Your task to perform on an android device: Search for flights from Mexico city to Seattle Image 0: 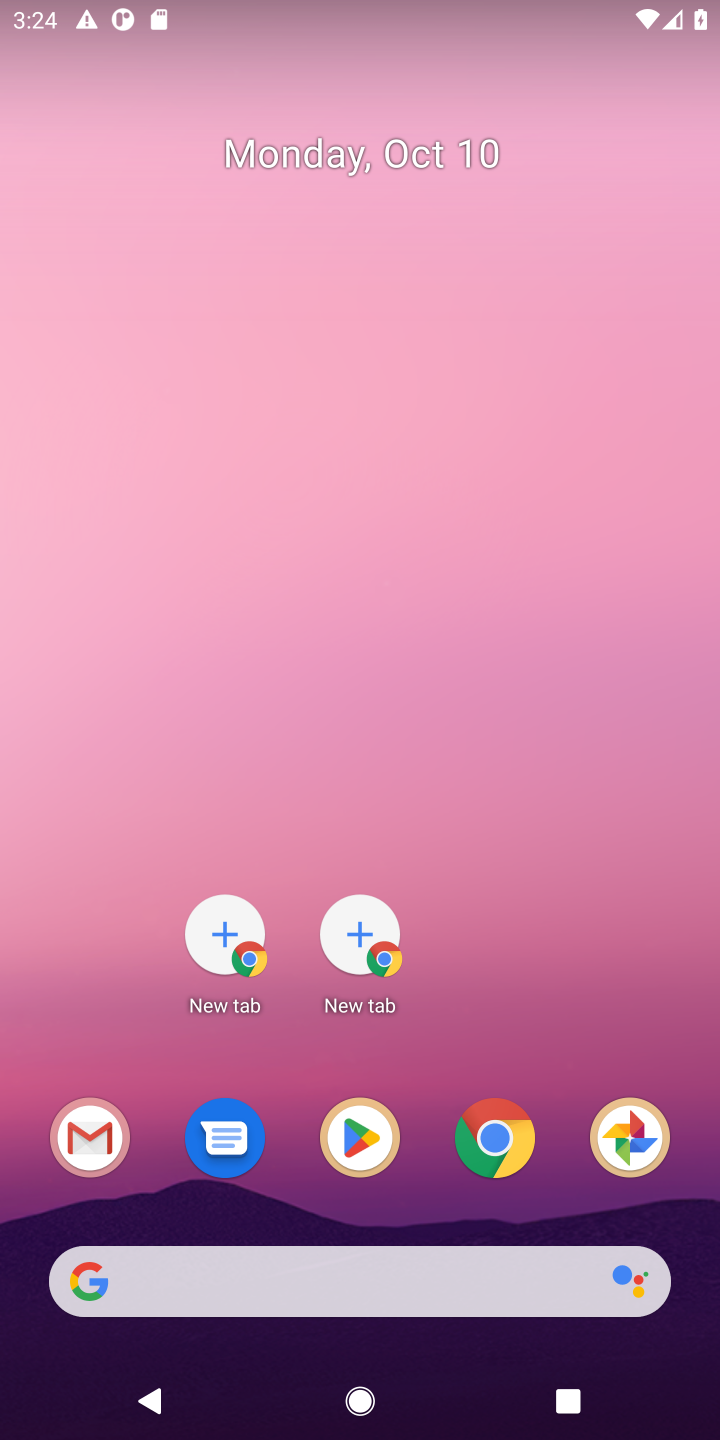
Step 0: click (520, 1151)
Your task to perform on an android device: Search for flights from Mexico city to Seattle Image 1: 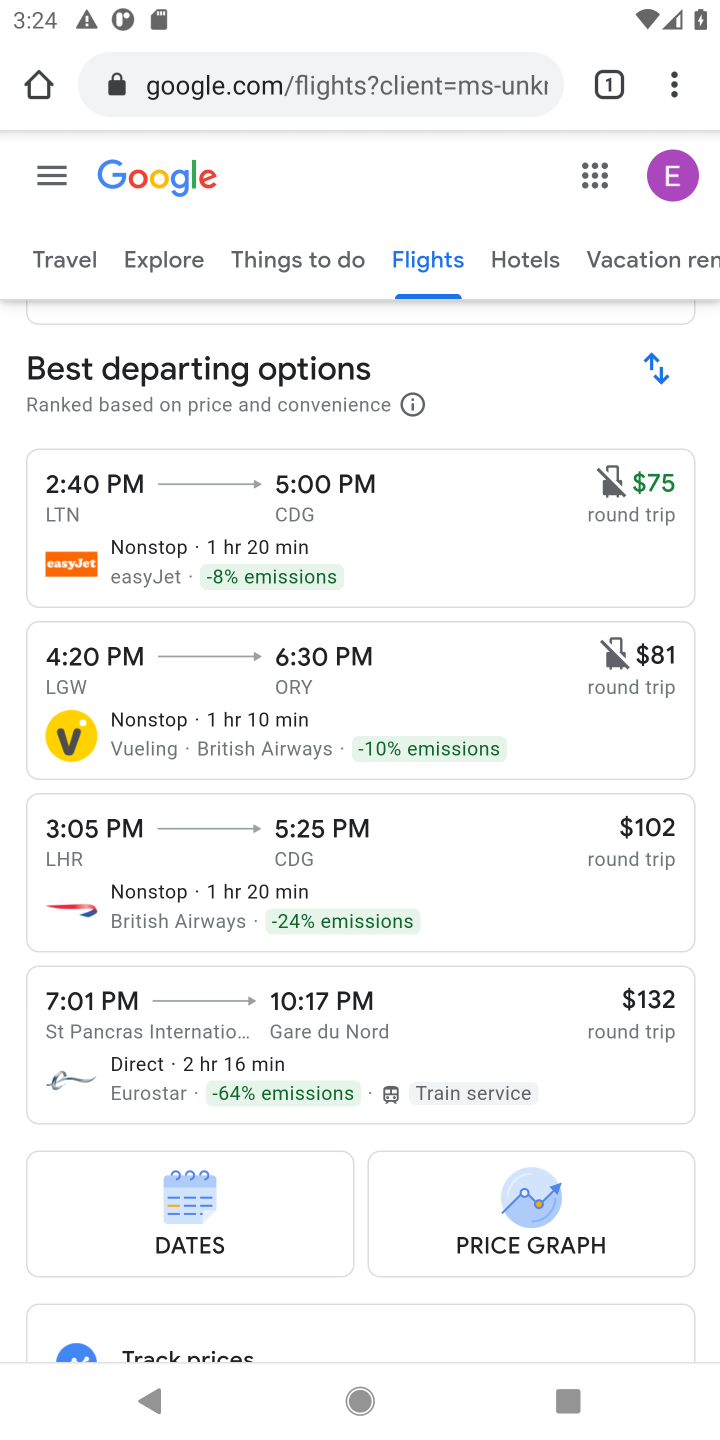
Step 1: click (393, 78)
Your task to perform on an android device: Search for flights from Mexico city to Seattle Image 2: 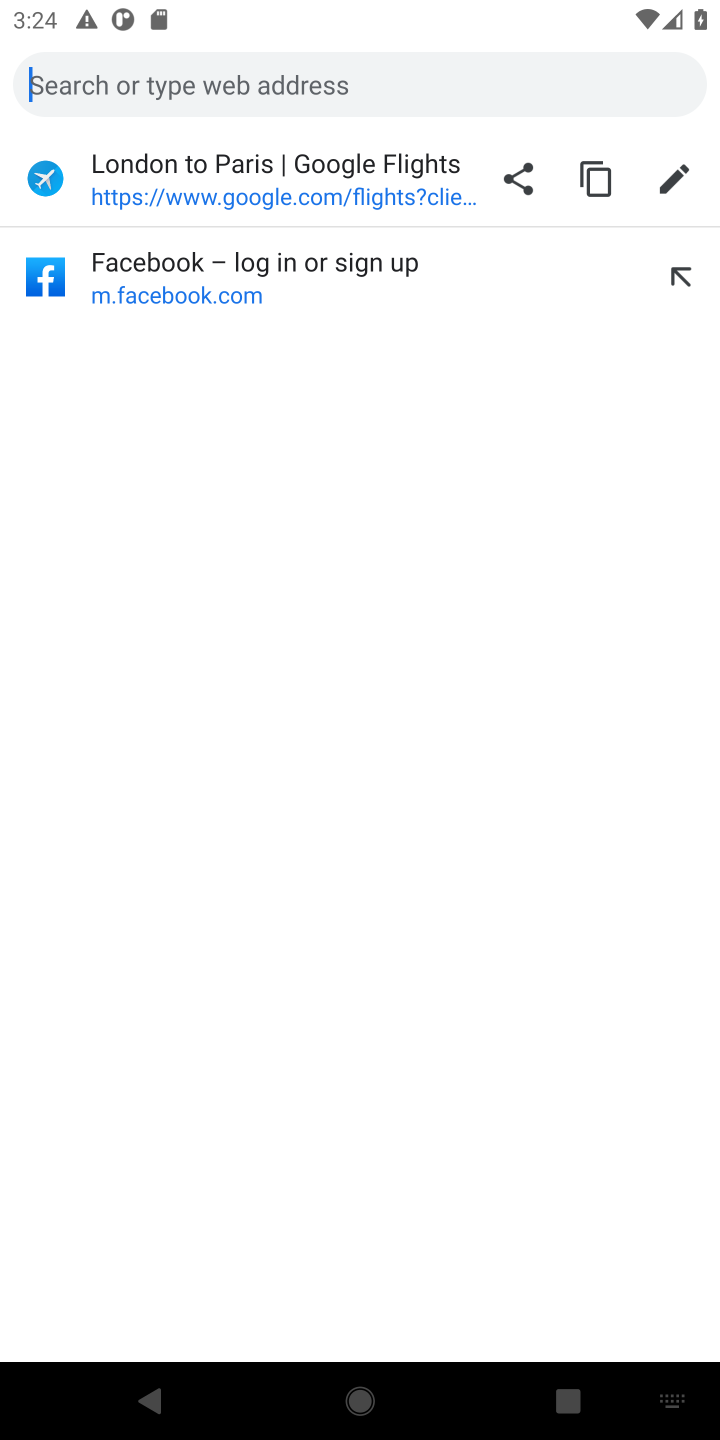
Step 2: click (372, 74)
Your task to perform on an android device: Search for flights from Mexico city to Seattle Image 3: 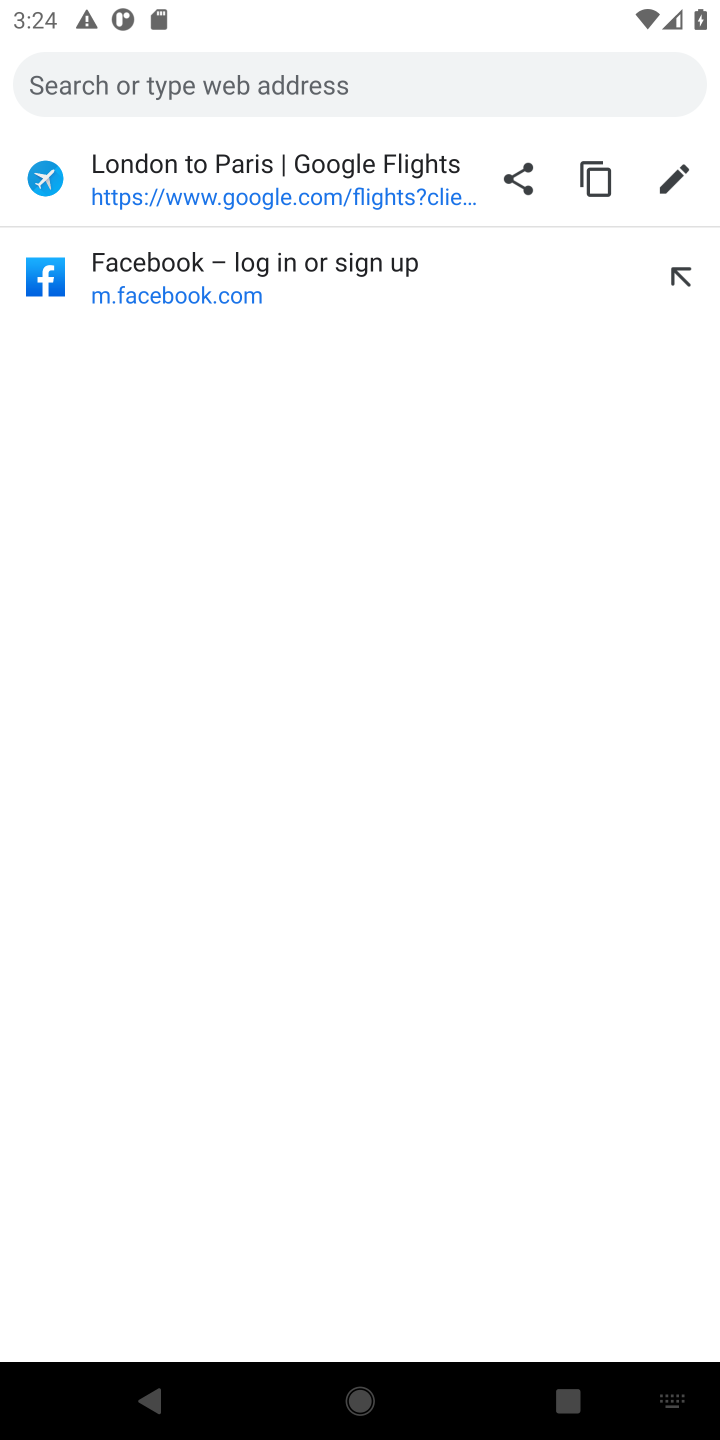
Step 3: click (343, 95)
Your task to perform on an android device: Search for flights from Mexico city to Seattle Image 4: 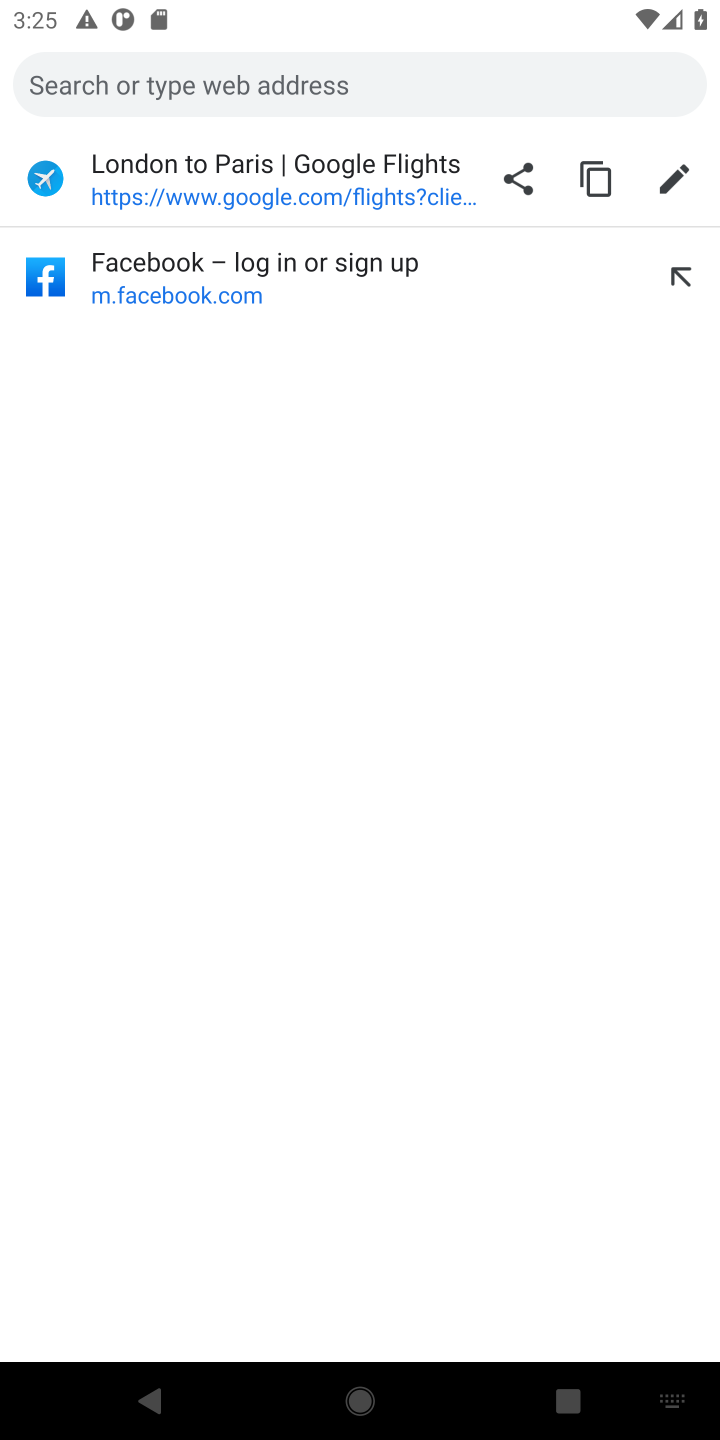
Step 4: type "flights from Mexico city to Seattle"
Your task to perform on an android device: Search for flights from Mexico city to Seattle Image 5: 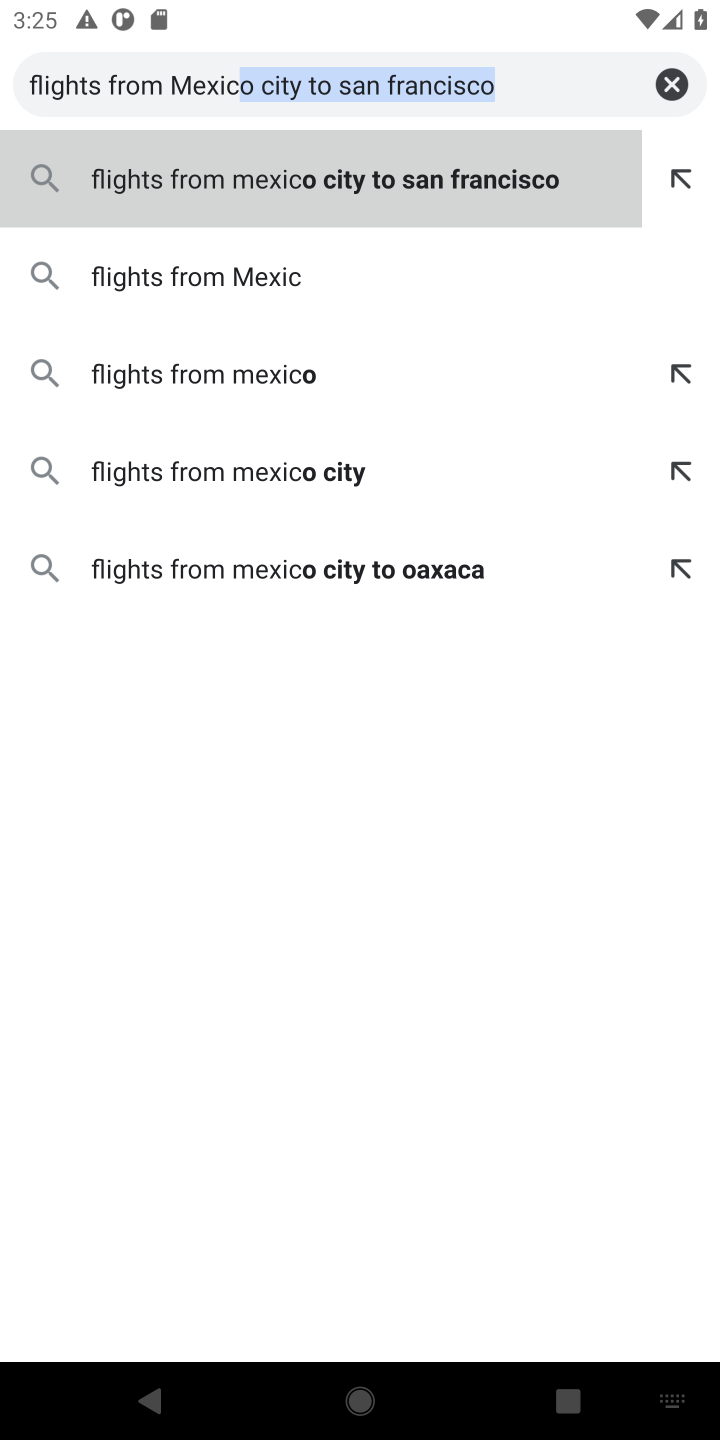
Step 5: type ""
Your task to perform on an android device: Search for flights from Mexico city to Seattle Image 6: 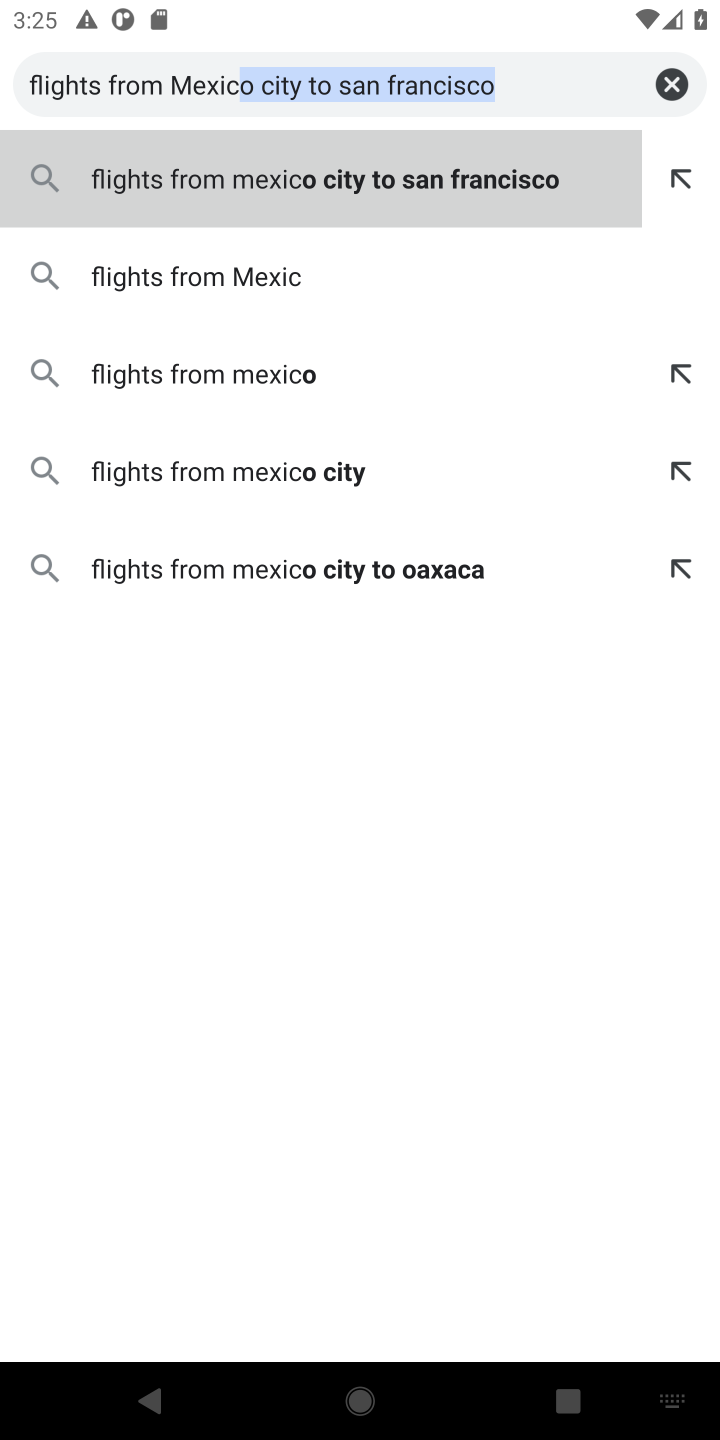
Step 6: press enter
Your task to perform on an android device: Search for flights from Mexico city to Seattle Image 7: 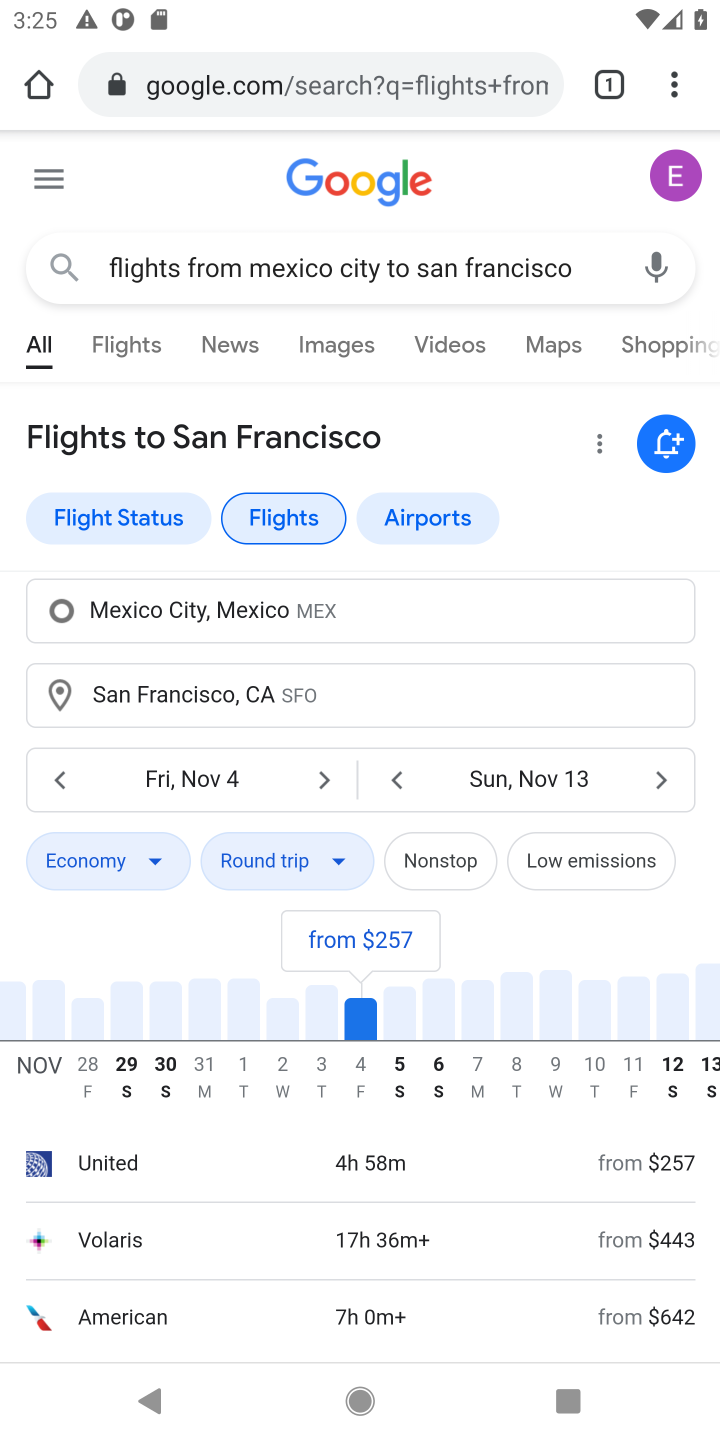
Step 7: drag from (446, 1114) to (429, 1181)
Your task to perform on an android device: Search for flights from Mexico city to Seattle Image 8: 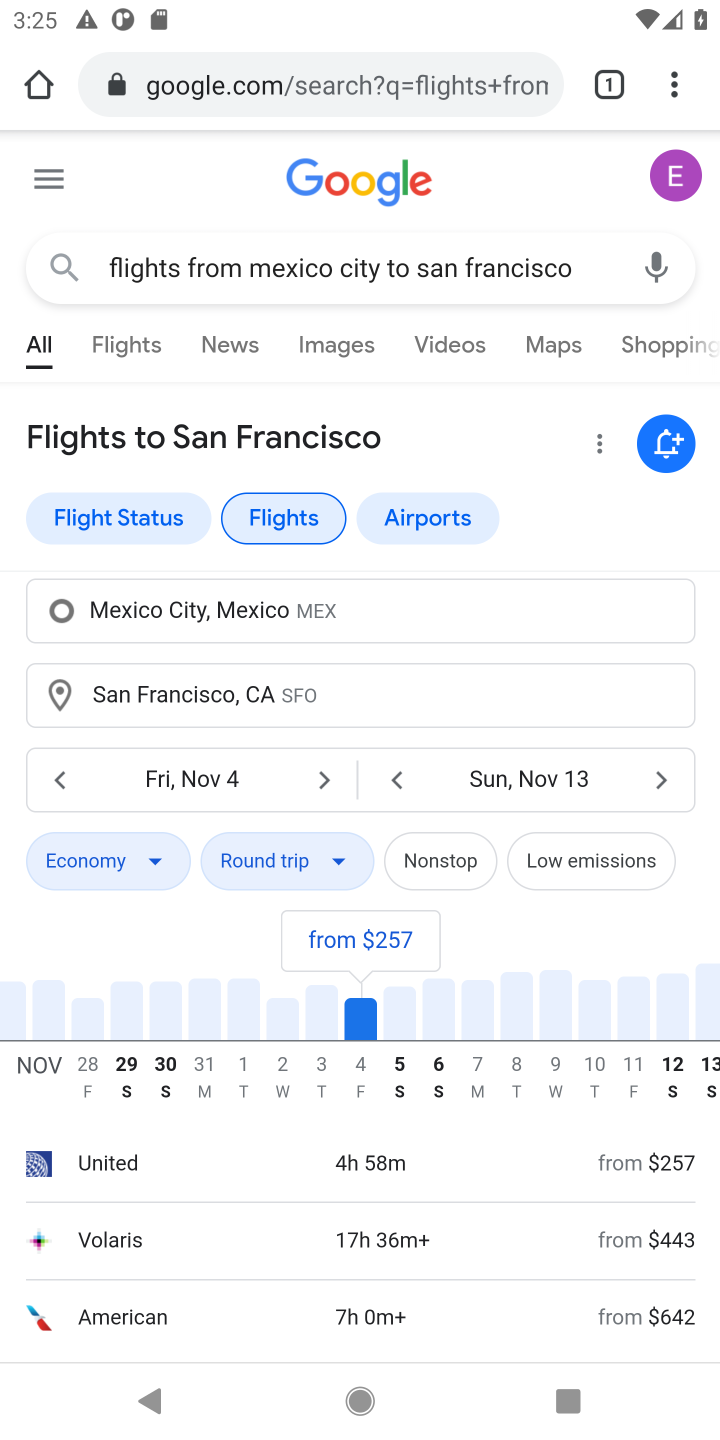
Step 8: click (570, 274)
Your task to perform on an android device: Search for flights from Mexico city to Seattle Image 9: 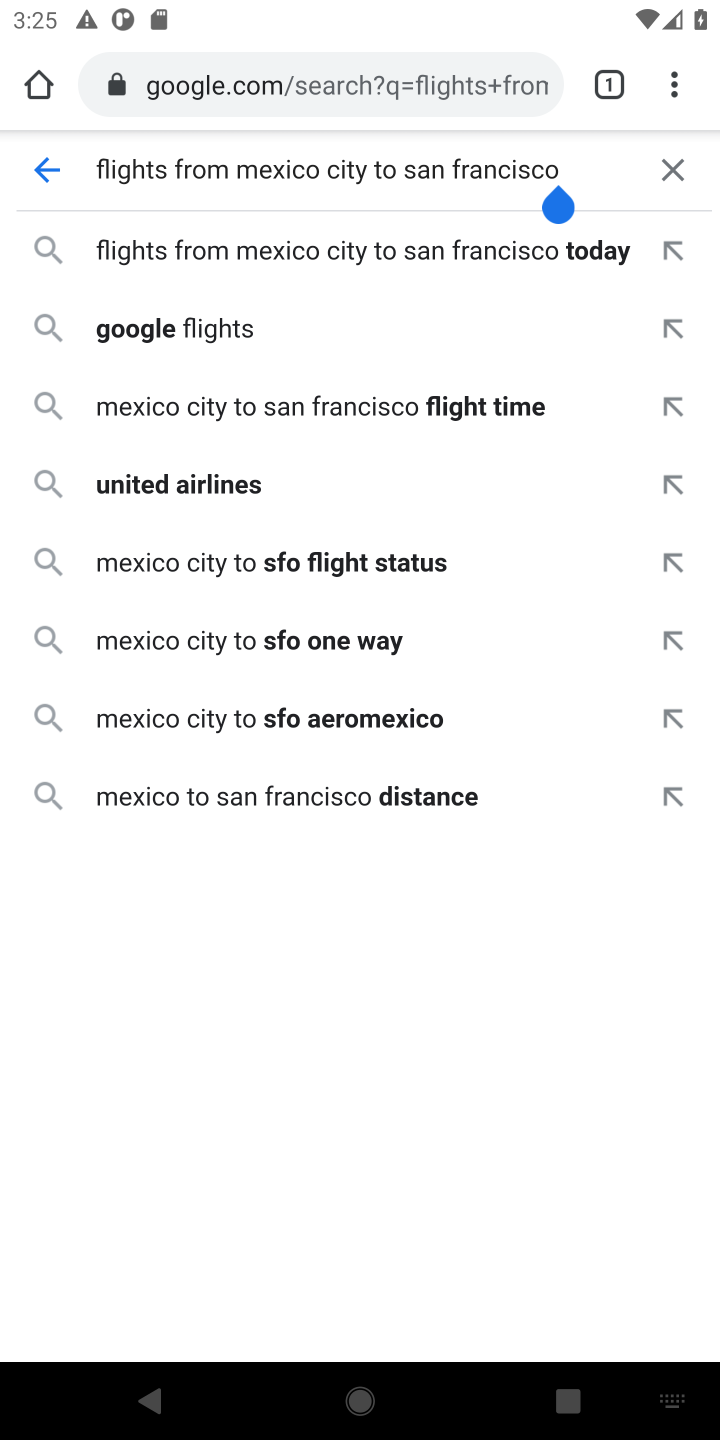
Step 9: click (489, 165)
Your task to perform on an android device: Search for flights from Mexico city to Seattle Image 10: 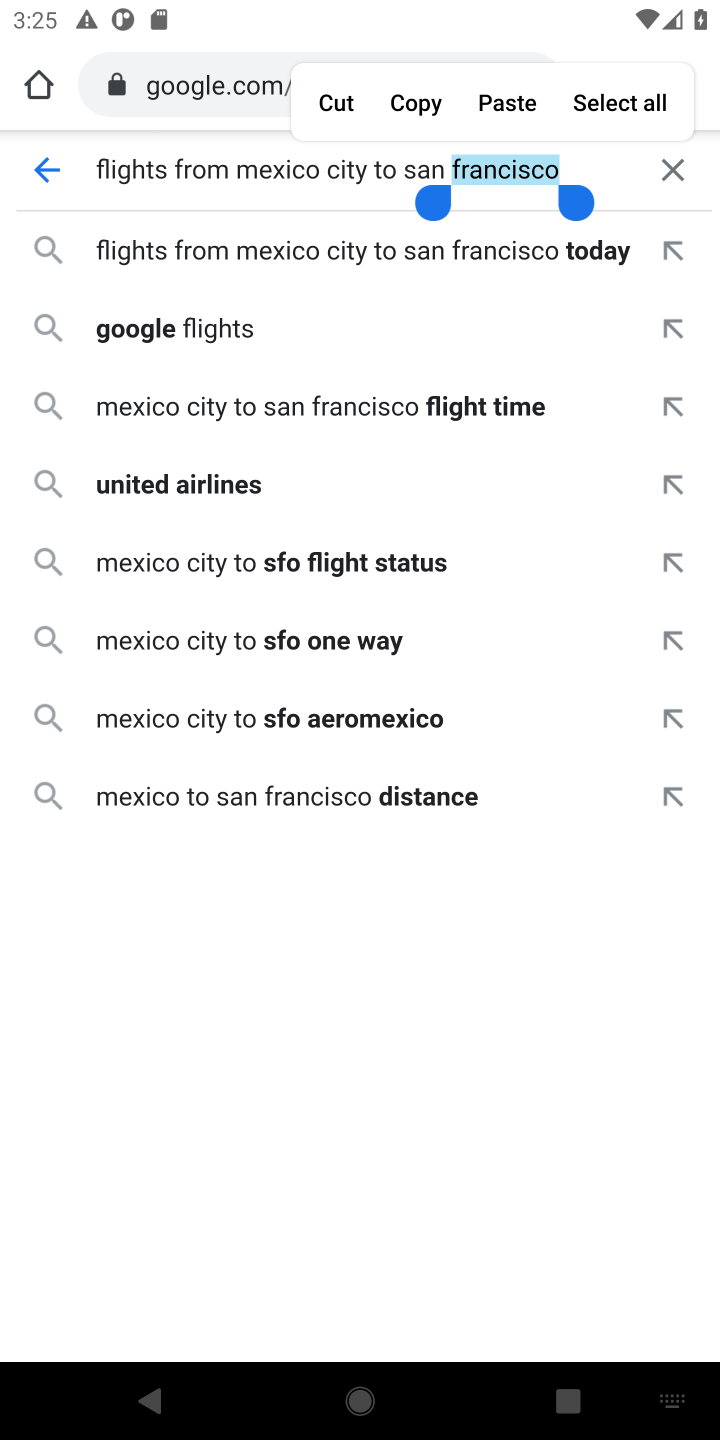
Step 10: click (430, 204)
Your task to perform on an android device: Search for flights from Mexico city to Seattle Image 11: 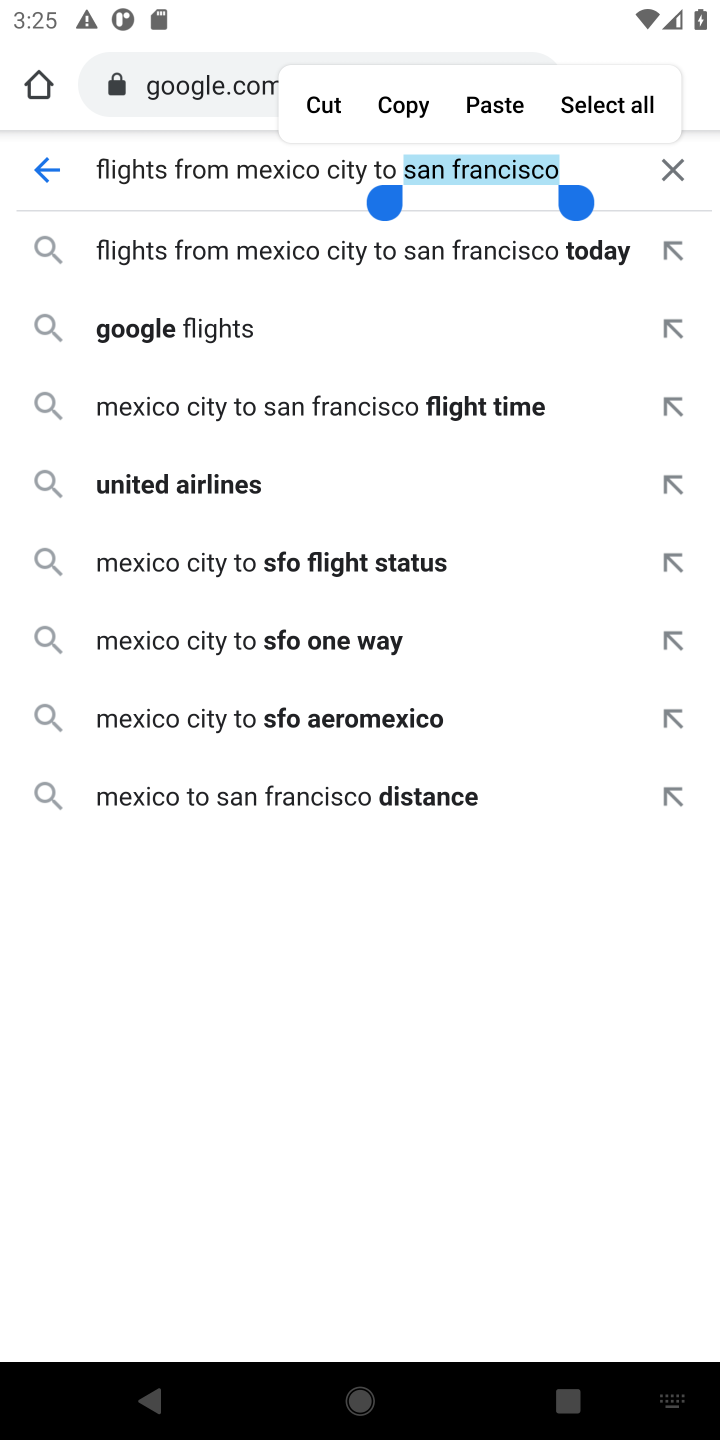
Step 11: type "seattle"
Your task to perform on an android device: Search for flights from Mexico city to Seattle Image 12: 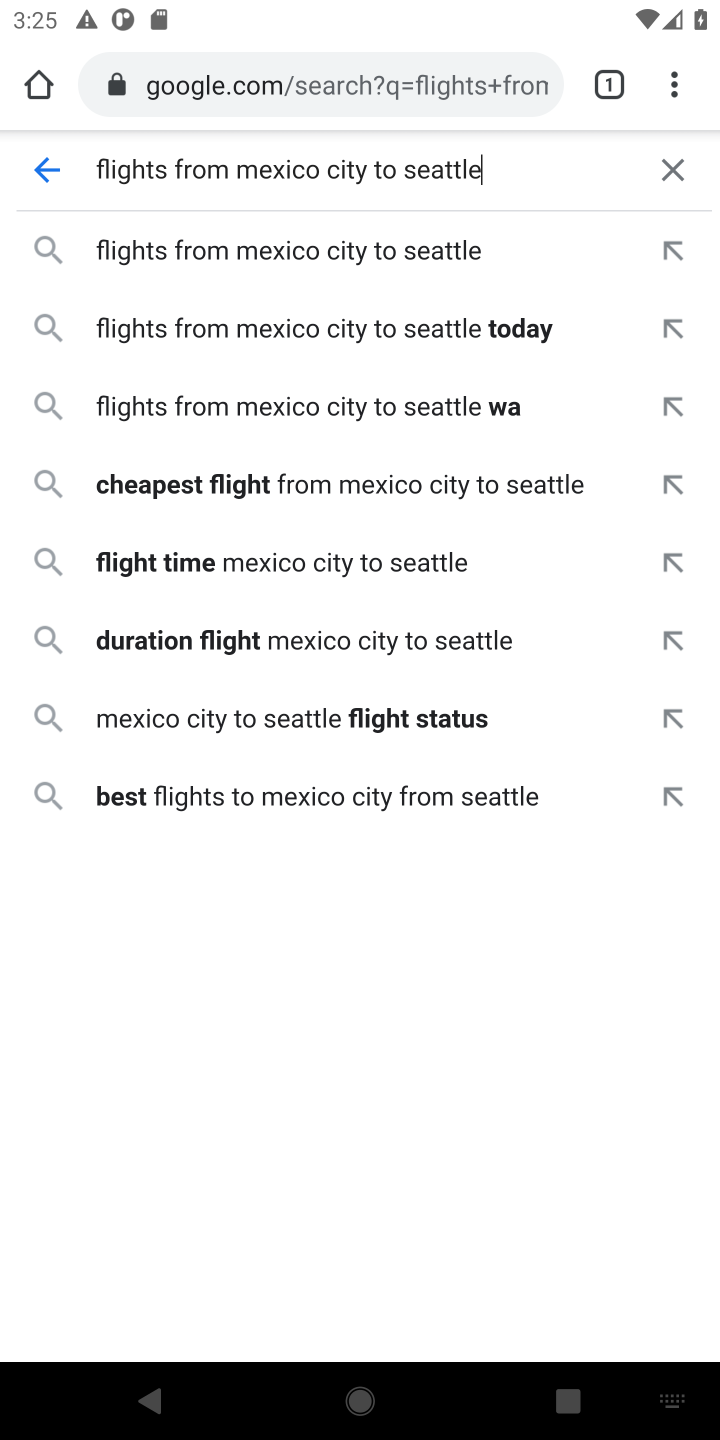
Step 12: type ""
Your task to perform on an android device: Search for flights from Mexico city to Seattle Image 13: 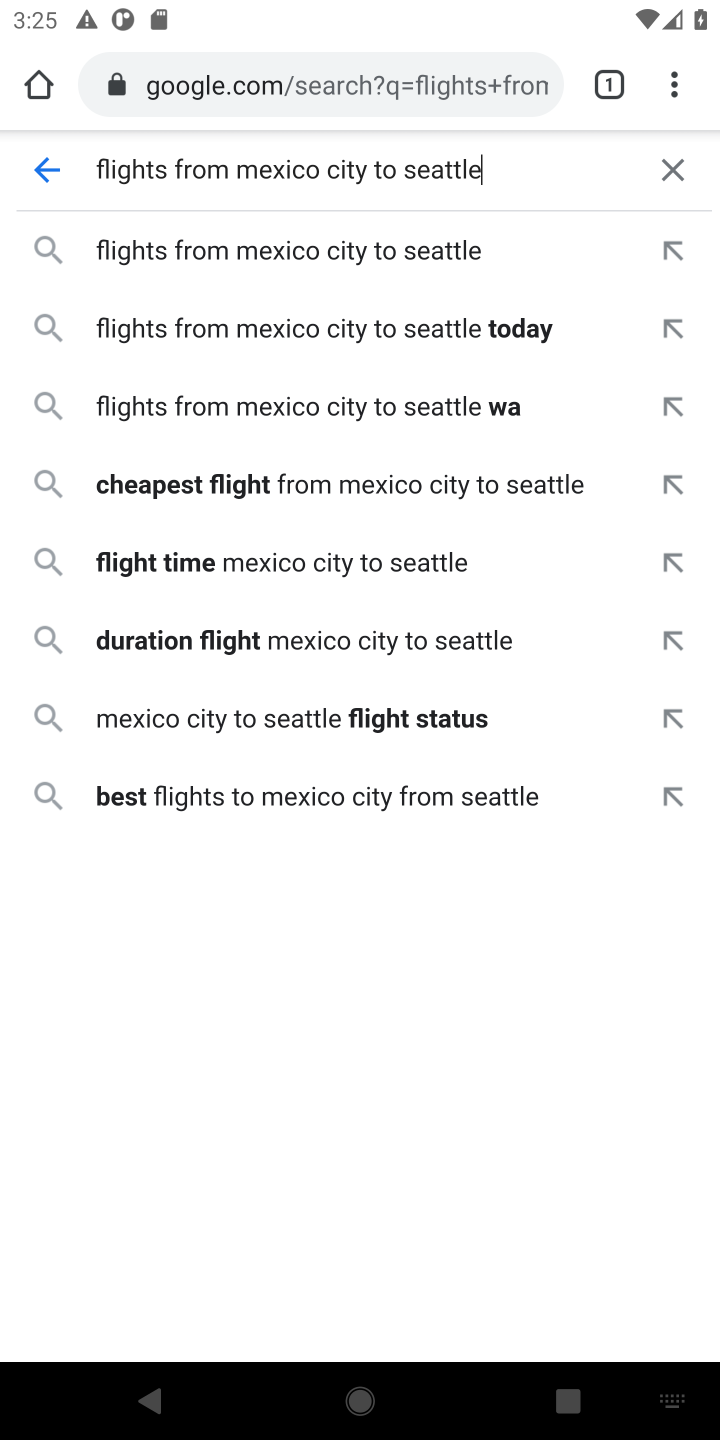
Step 13: press enter
Your task to perform on an android device: Search for flights from Mexico city to Seattle Image 14: 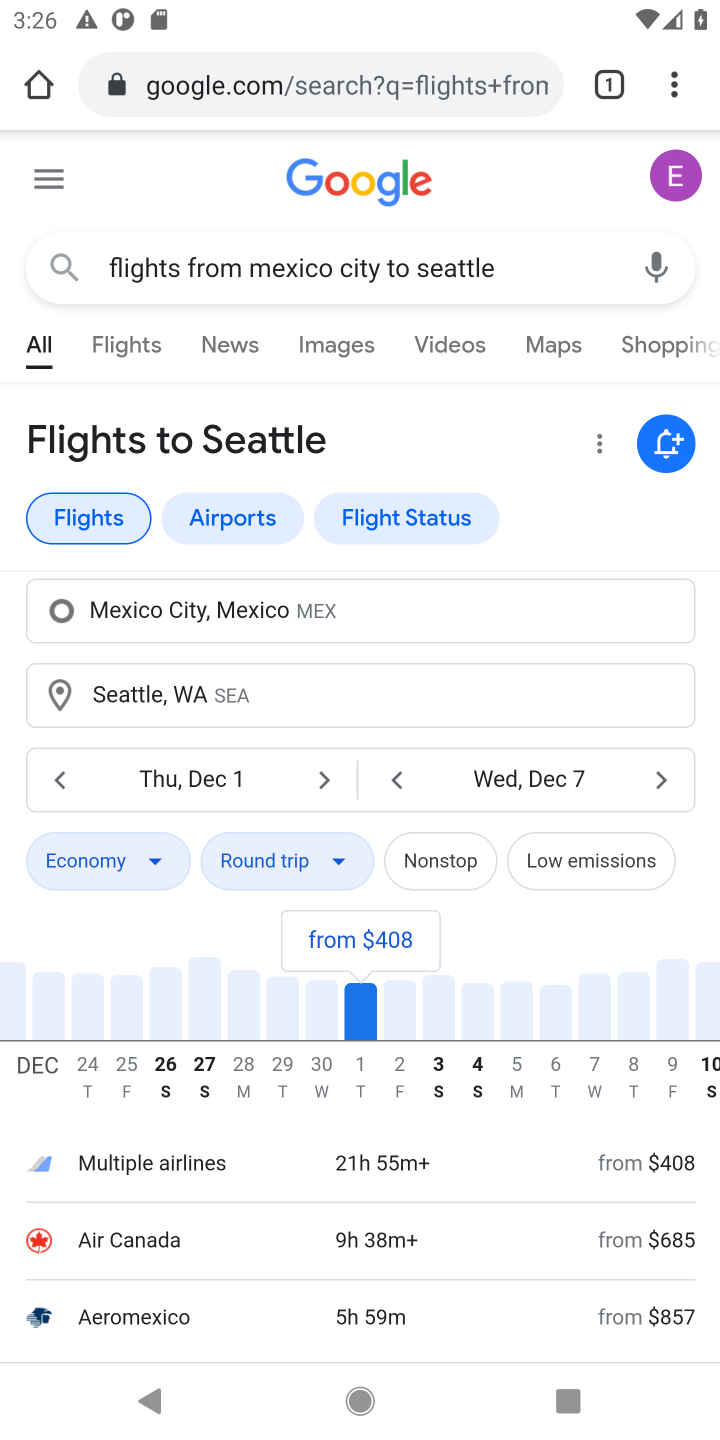
Step 14: drag from (572, 1153) to (510, 663)
Your task to perform on an android device: Search for flights from Mexico city to Seattle Image 15: 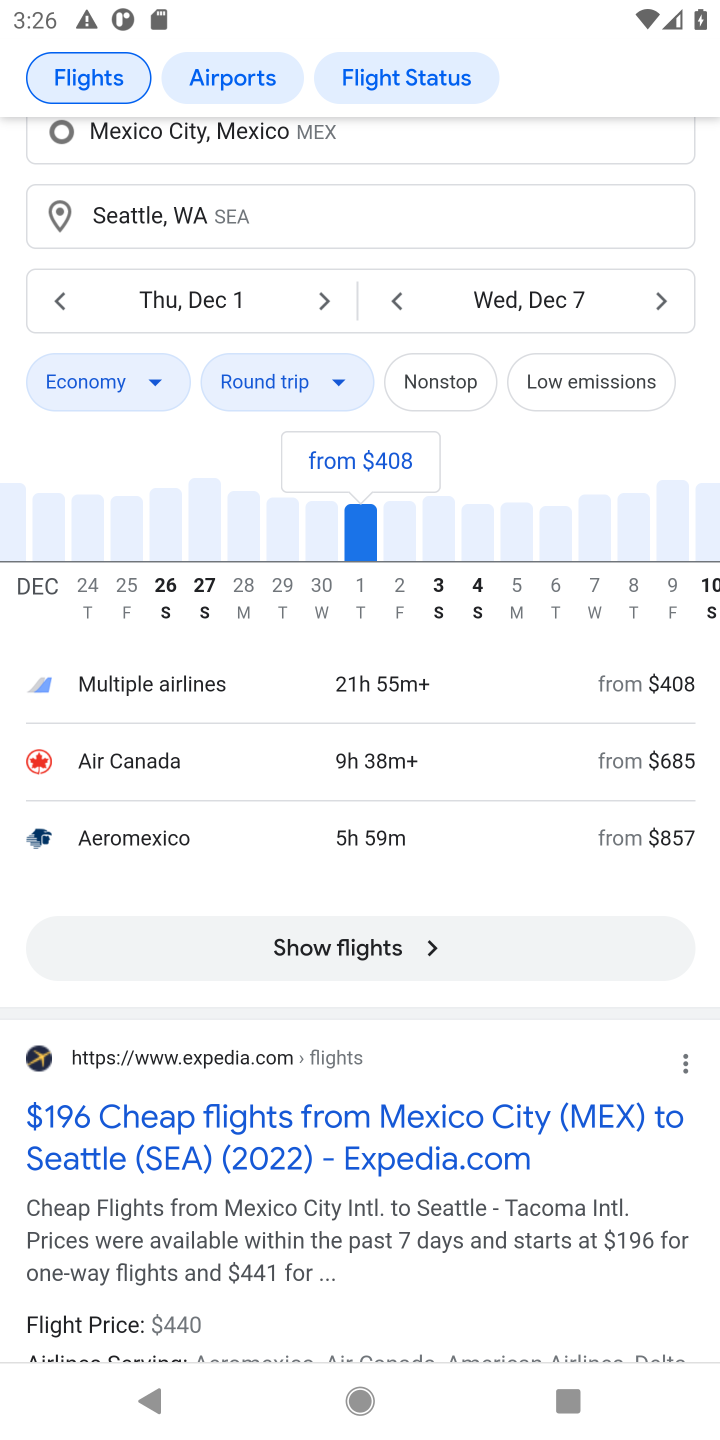
Step 15: click (381, 972)
Your task to perform on an android device: Search for flights from Mexico city to Seattle Image 16: 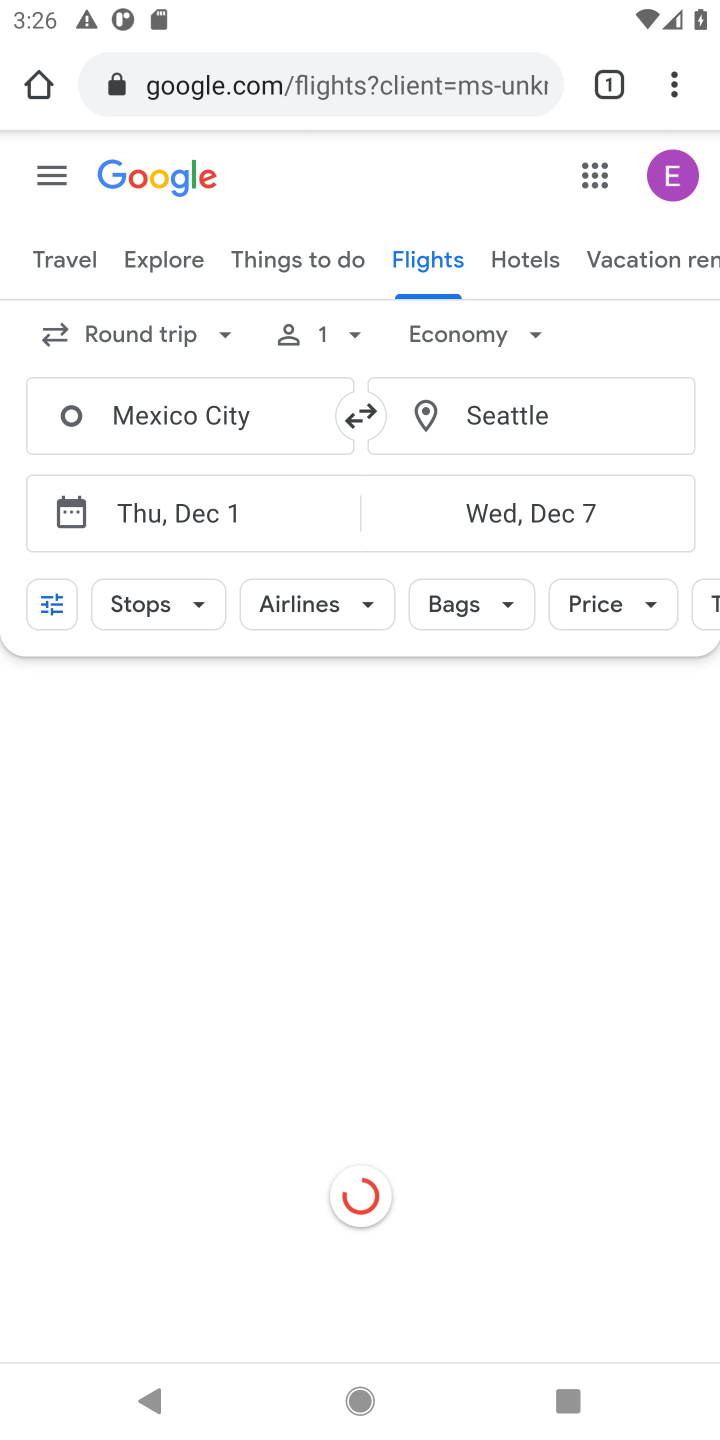
Step 16: task complete